Your task to perform on an android device: Check the weather Image 0: 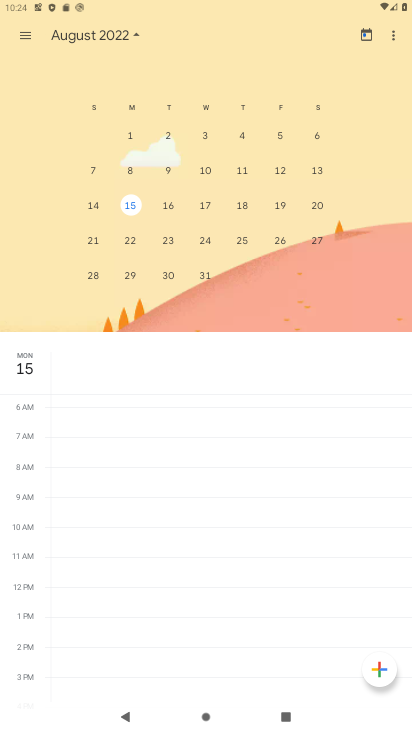
Step 0: press home button
Your task to perform on an android device: Check the weather Image 1: 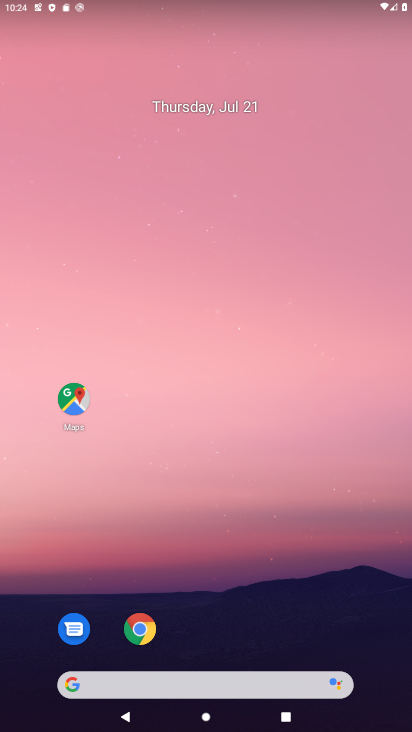
Step 1: click (191, 686)
Your task to perform on an android device: Check the weather Image 2: 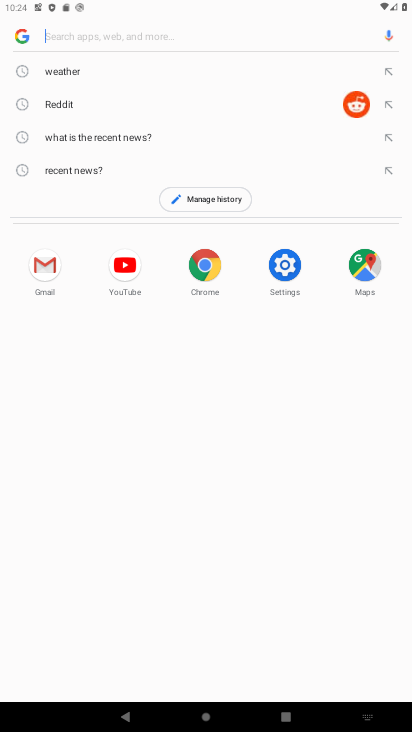
Step 2: click (90, 58)
Your task to perform on an android device: Check the weather Image 3: 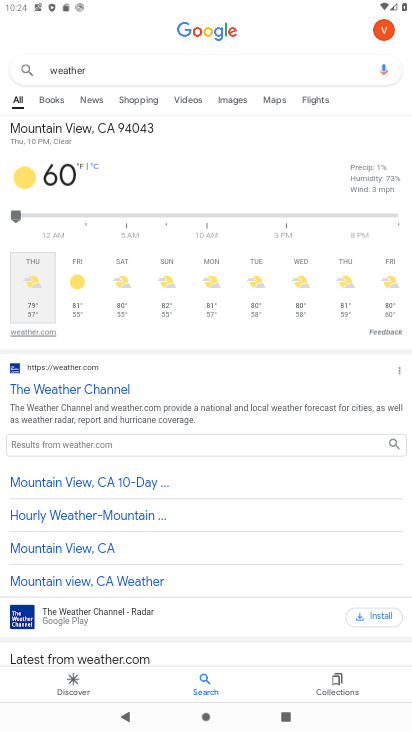
Step 3: task complete